Your task to perform on an android device: change the clock display to digital Image 0: 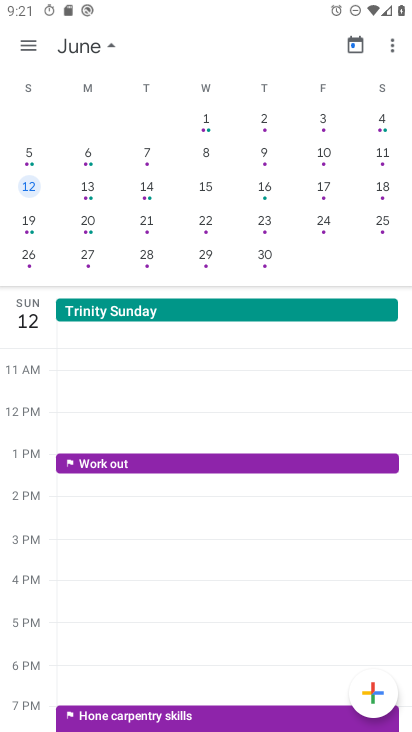
Step 0: press home button
Your task to perform on an android device: change the clock display to digital Image 1: 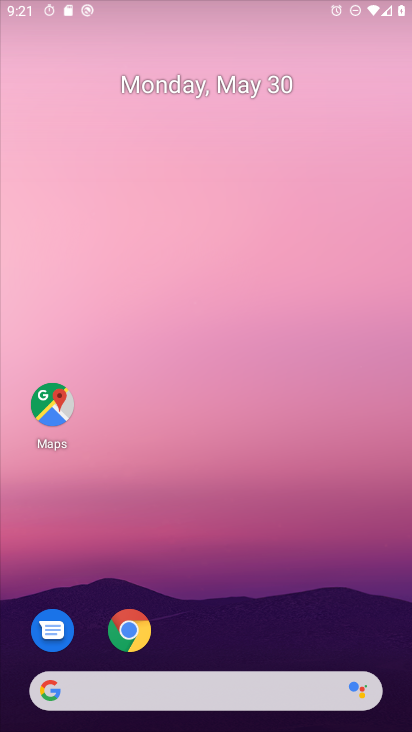
Step 1: drag from (385, 606) to (310, 26)
Your task to perform on an android device: change the clock display to digital Image 2: 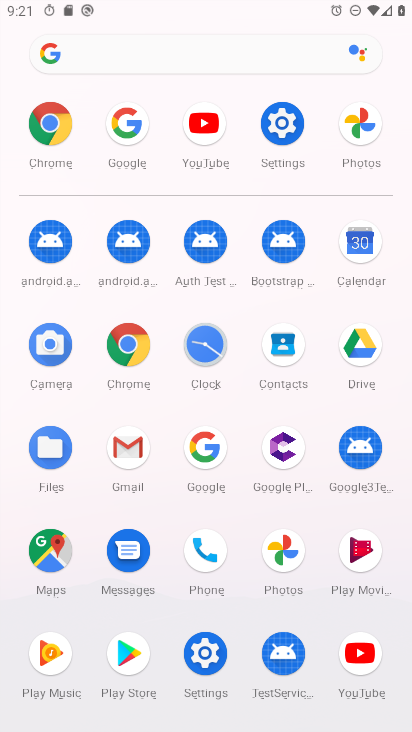
Step 2: click (189, 323)
Your task to perform on an android device: change the clock display to digital Image 3: 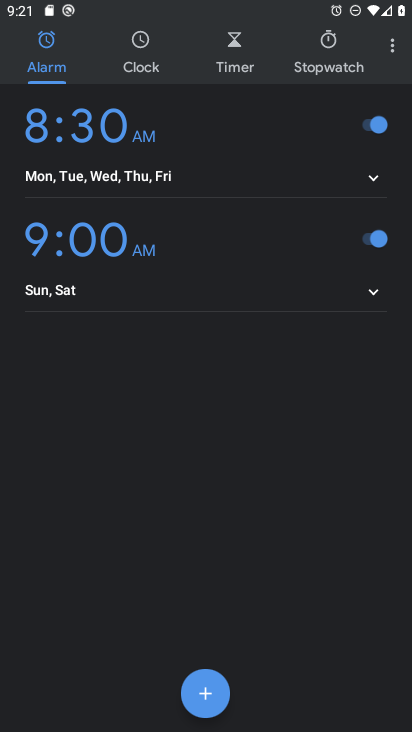
Step 3: click (396, 40)
Your task to perform on an android device: change the clock display to digital Image 4: 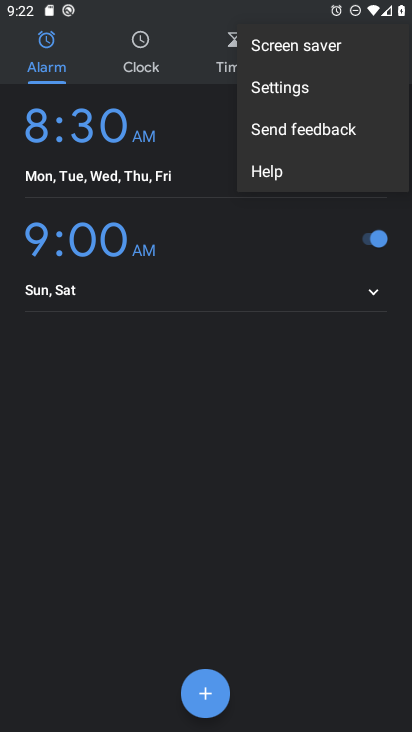
Step 4: click (305, 83)
Your task to perform on an android device: change the clock display to digital Image 5: 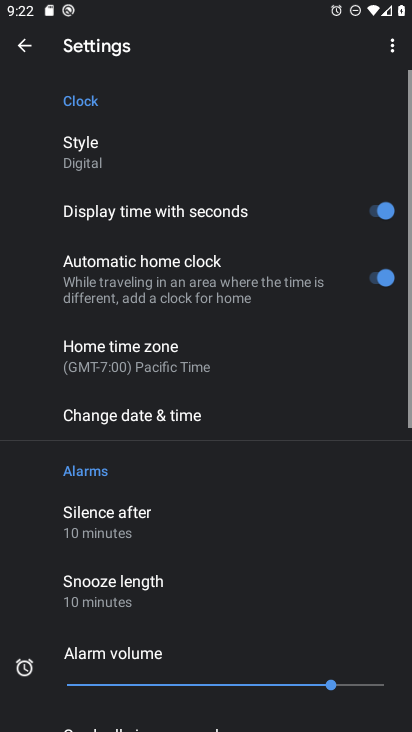
Step 5: click (161, 137)
Your task to perform on an android device: change the clock display to digital Image 6: 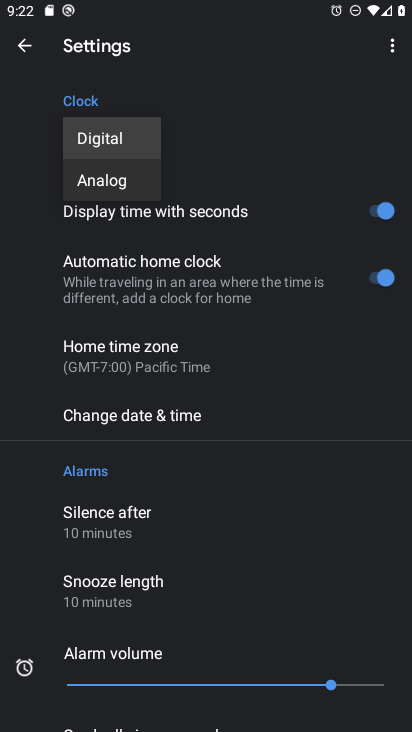
Step 6: click (138, 138)
Your task to perform on an android device: change the clock display to digital Image 7: 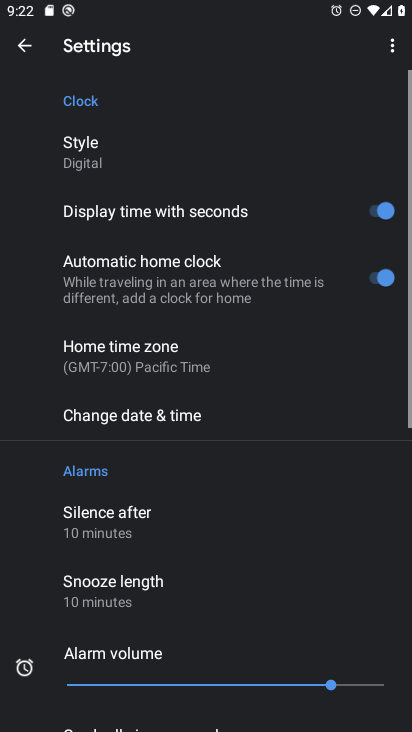
Step 7: task complete